Your task to perform on an android device: What's the weather going to be this weekend? Image 0: 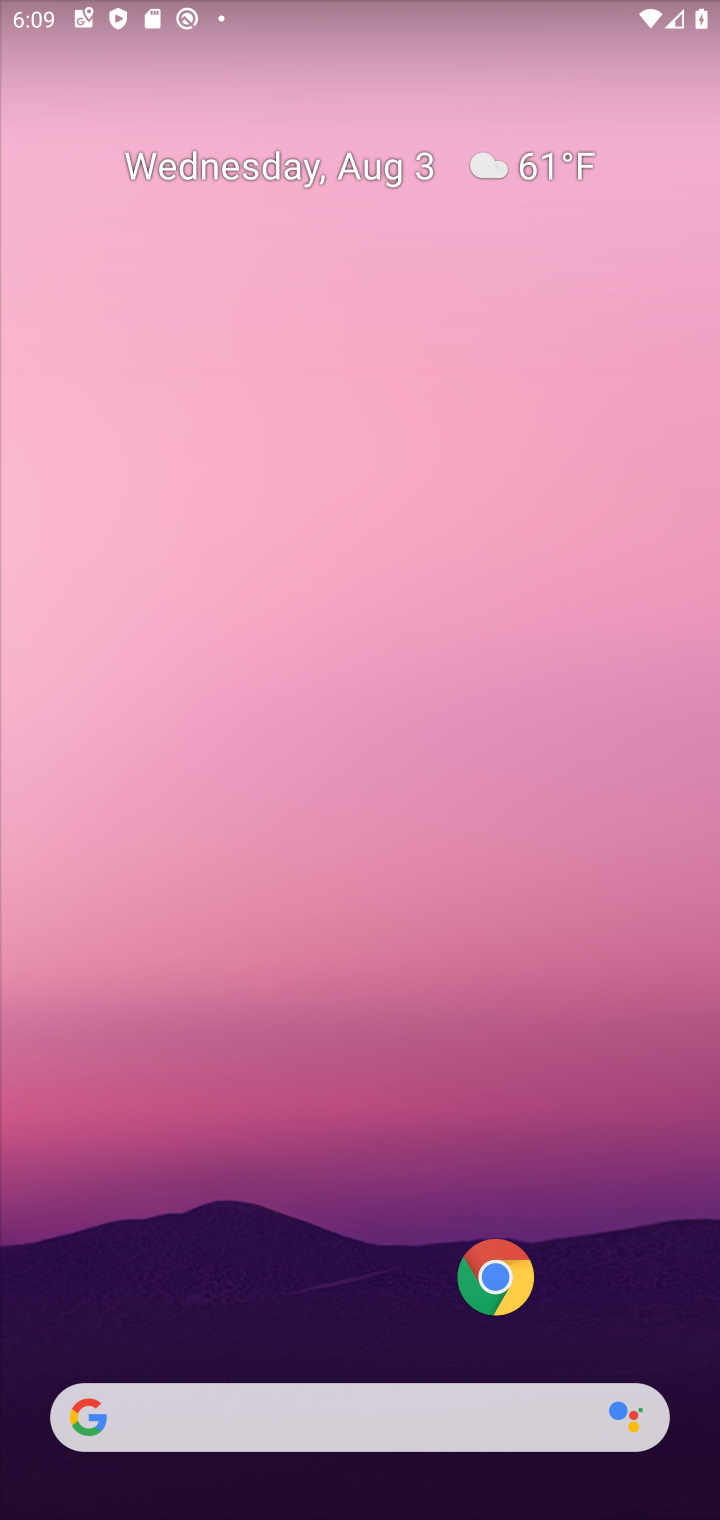
Step 0: drag from (259, 1150) to (453, 33)
Your task to perform on an android device: What's the weather going to be this weekend? Image 1: 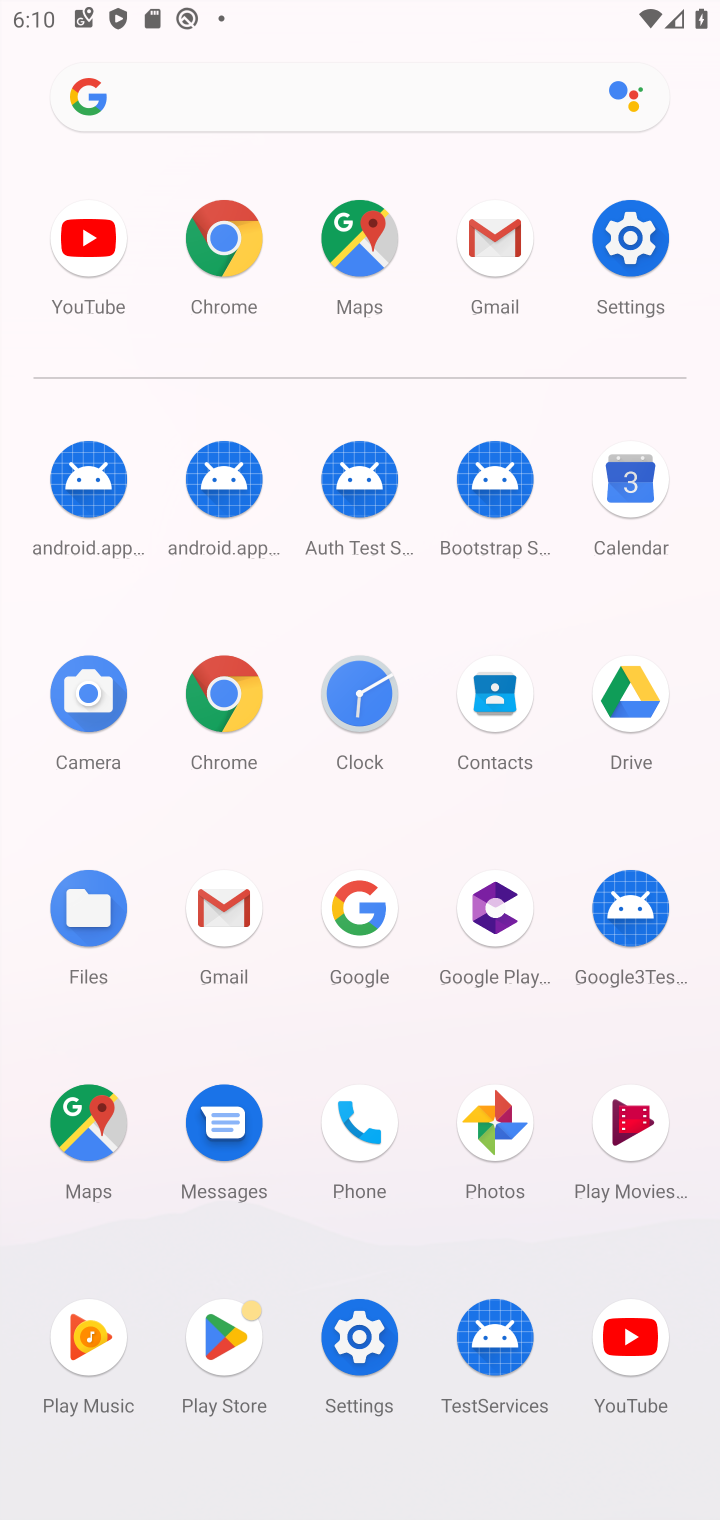
Step 1: click (338, 91)
Your task to perform on an android device: What's the weather going to be this weekend? Image 2: 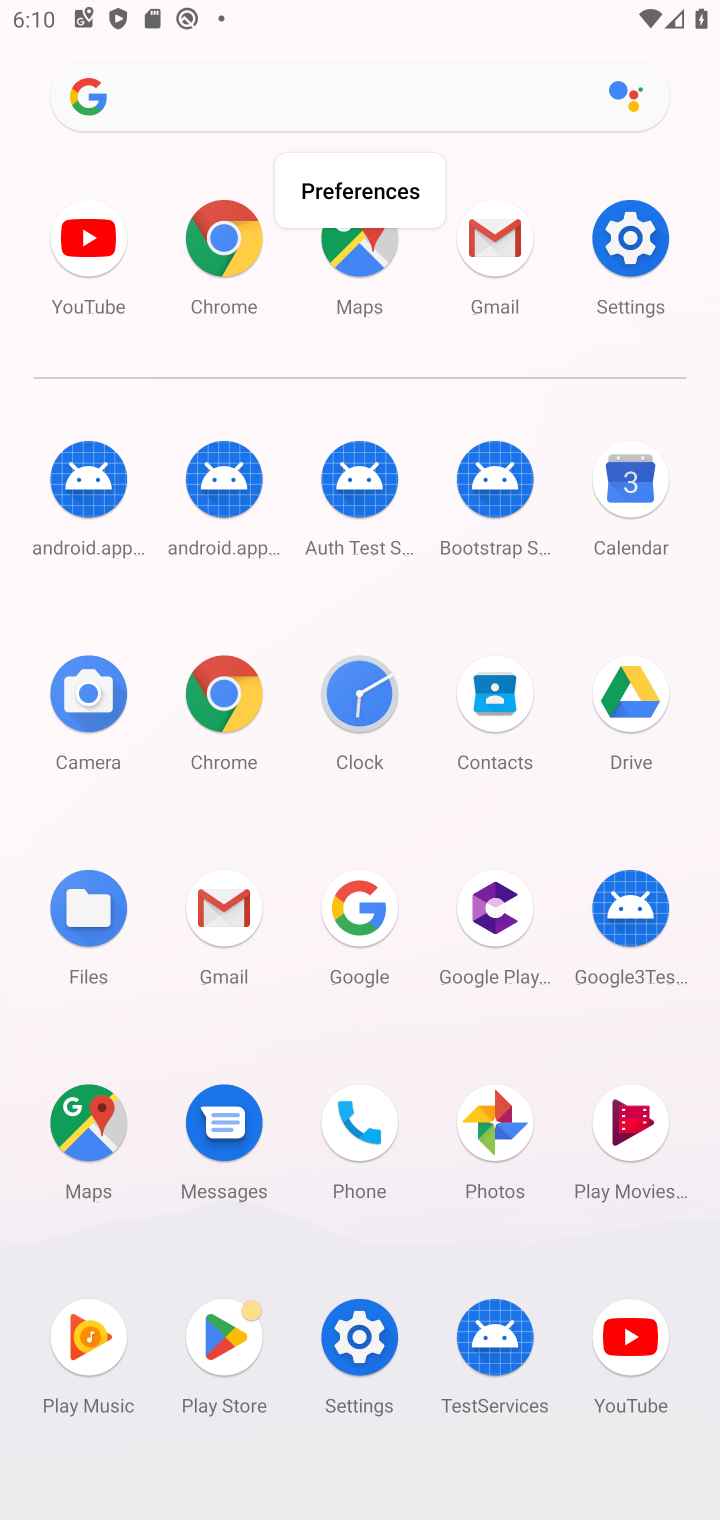
Step 2: click (272, 99)
Your task to perform on an android device: What's the weather going to be this weekend? Image 3: 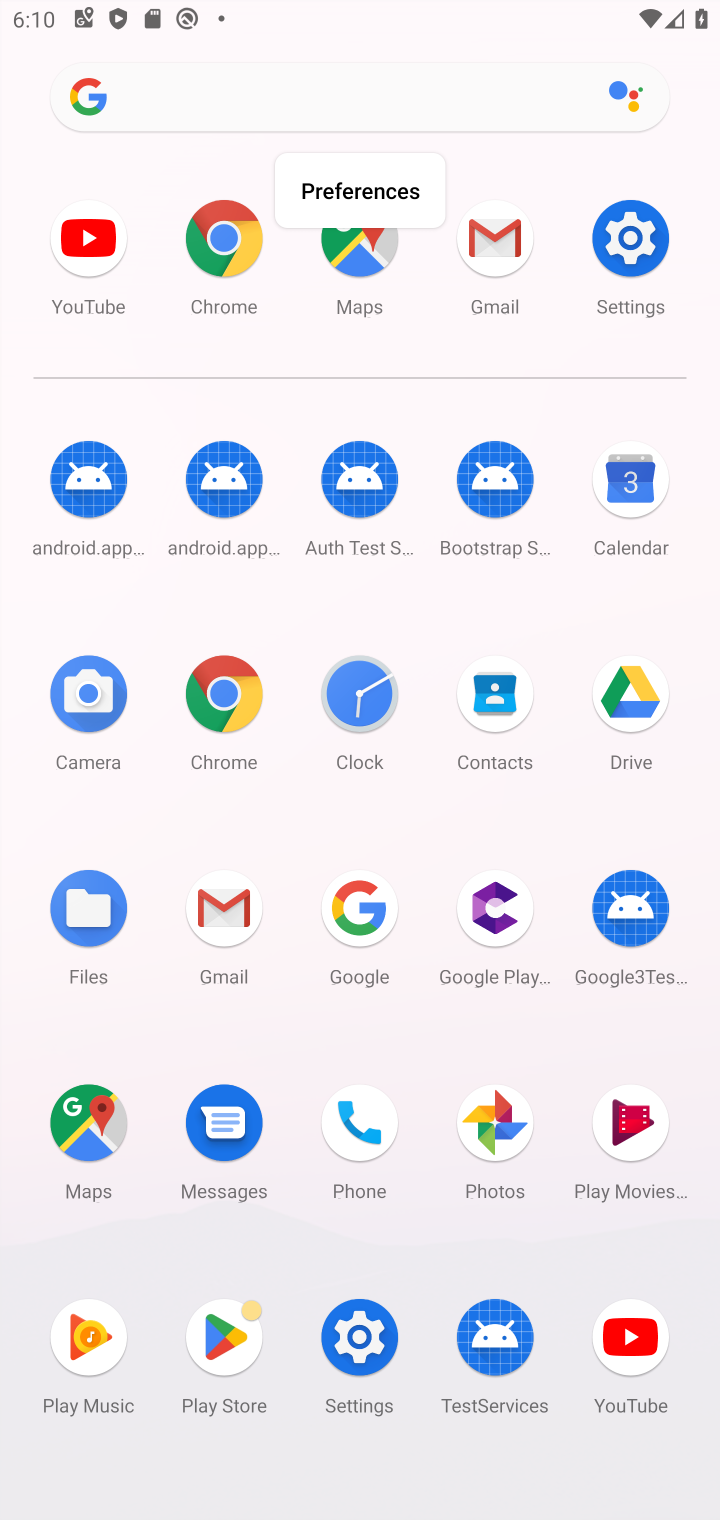
Step 3: click (268, 94)
Your task to perform on an android device: What's the weather going to be this weekend? Image 4: 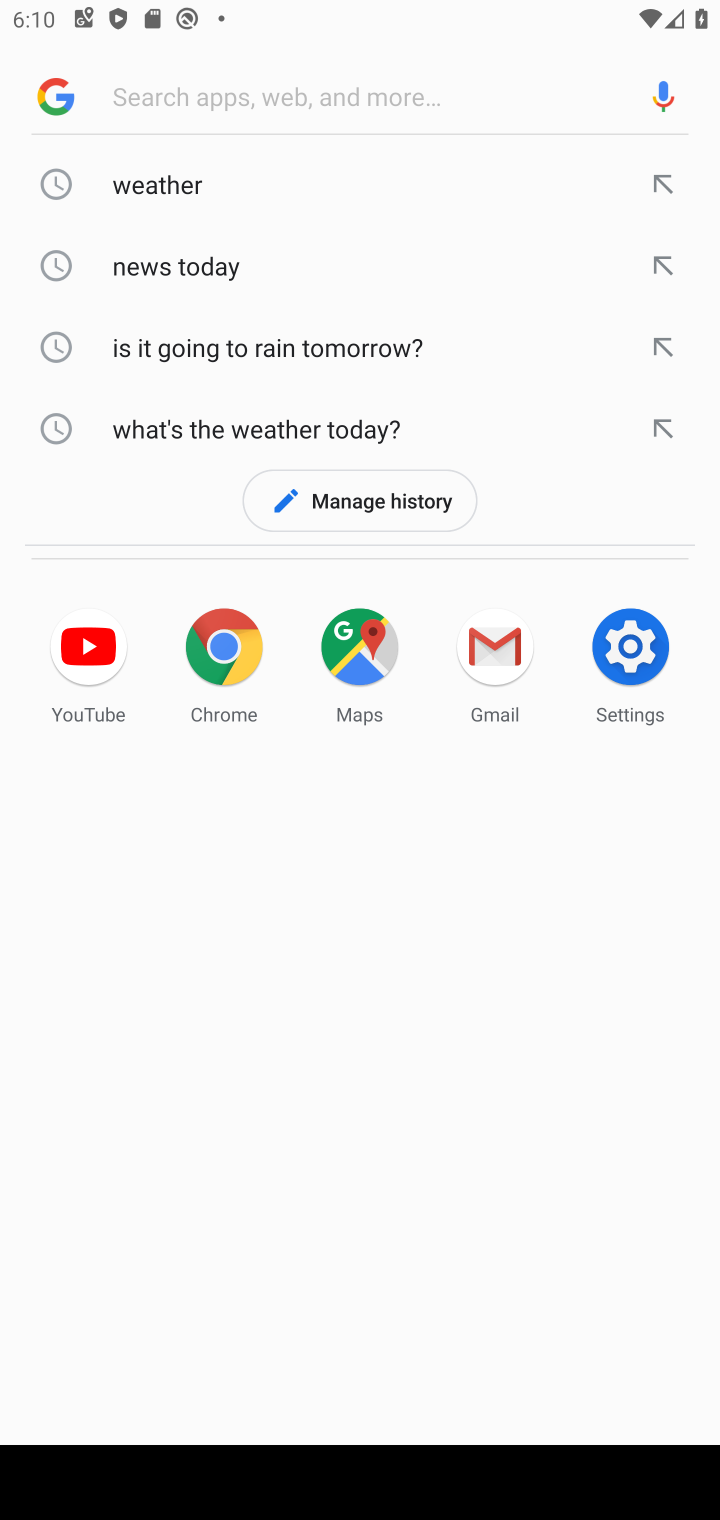
Step 4: click (227, 171)
Your task to perform on an android device: What's the weather going to be this weekend? Image 5: 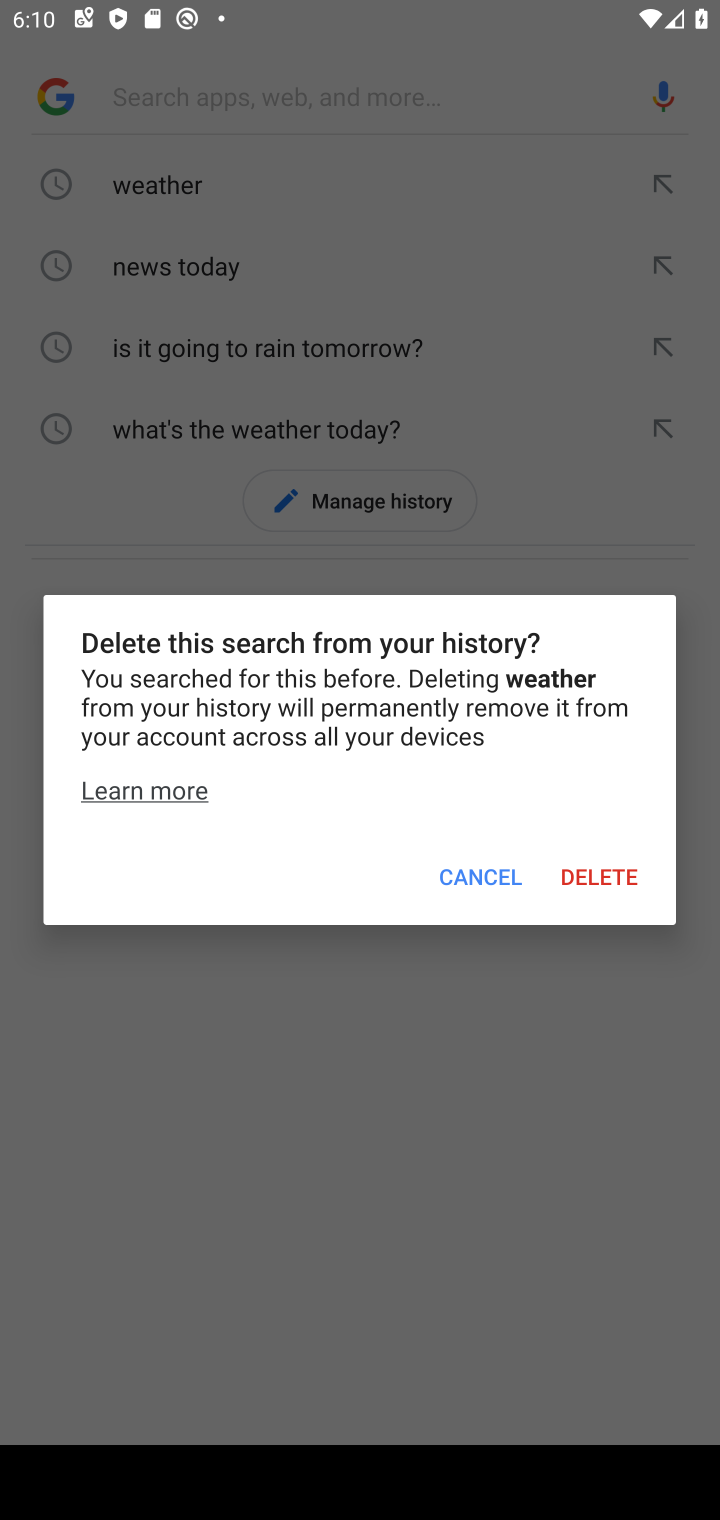
Step 5: click (456, 853)
Your task to perform on an android device: What's the weather going to be this weekend? Image 6: 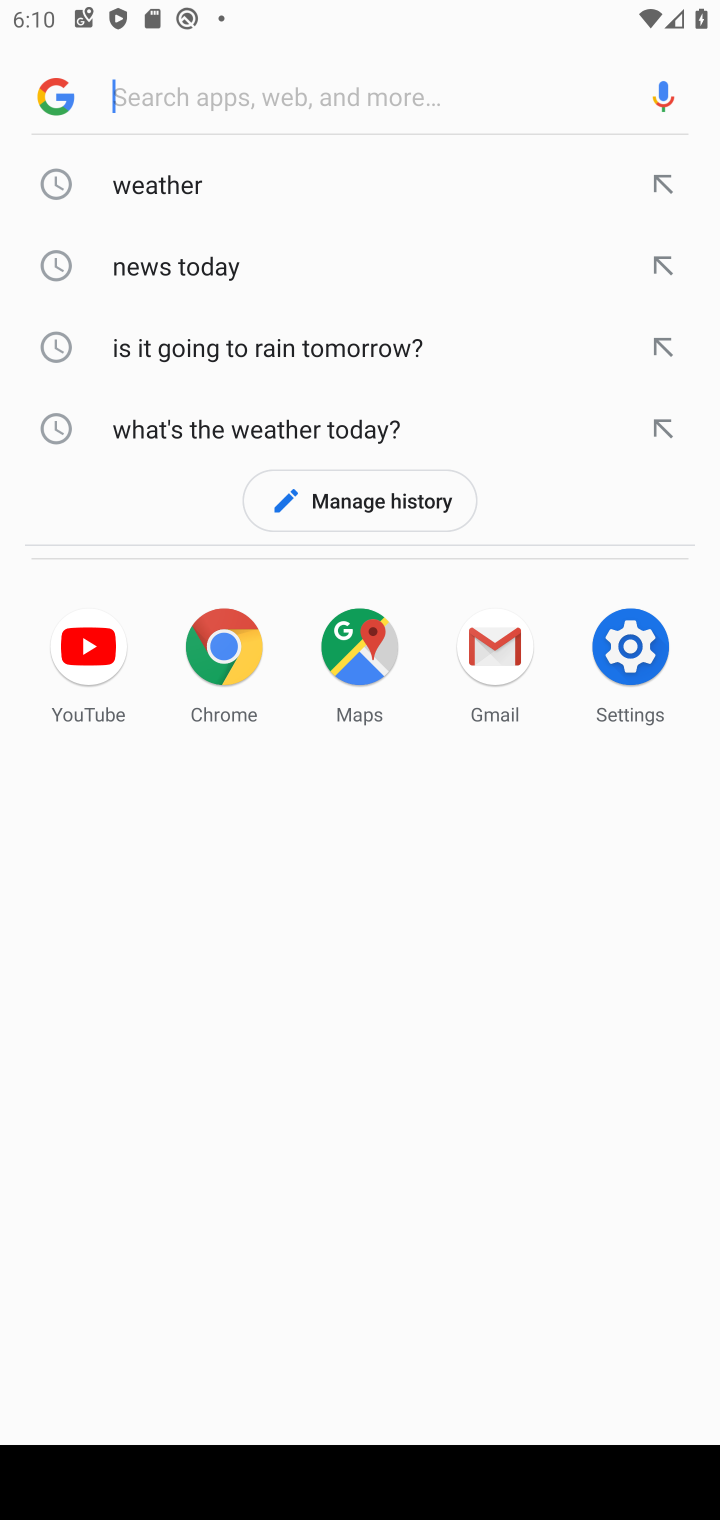
Step 6: click (210, 182)
Your task to perform on an android device: What's the weather going to be this weekend? Image 7: 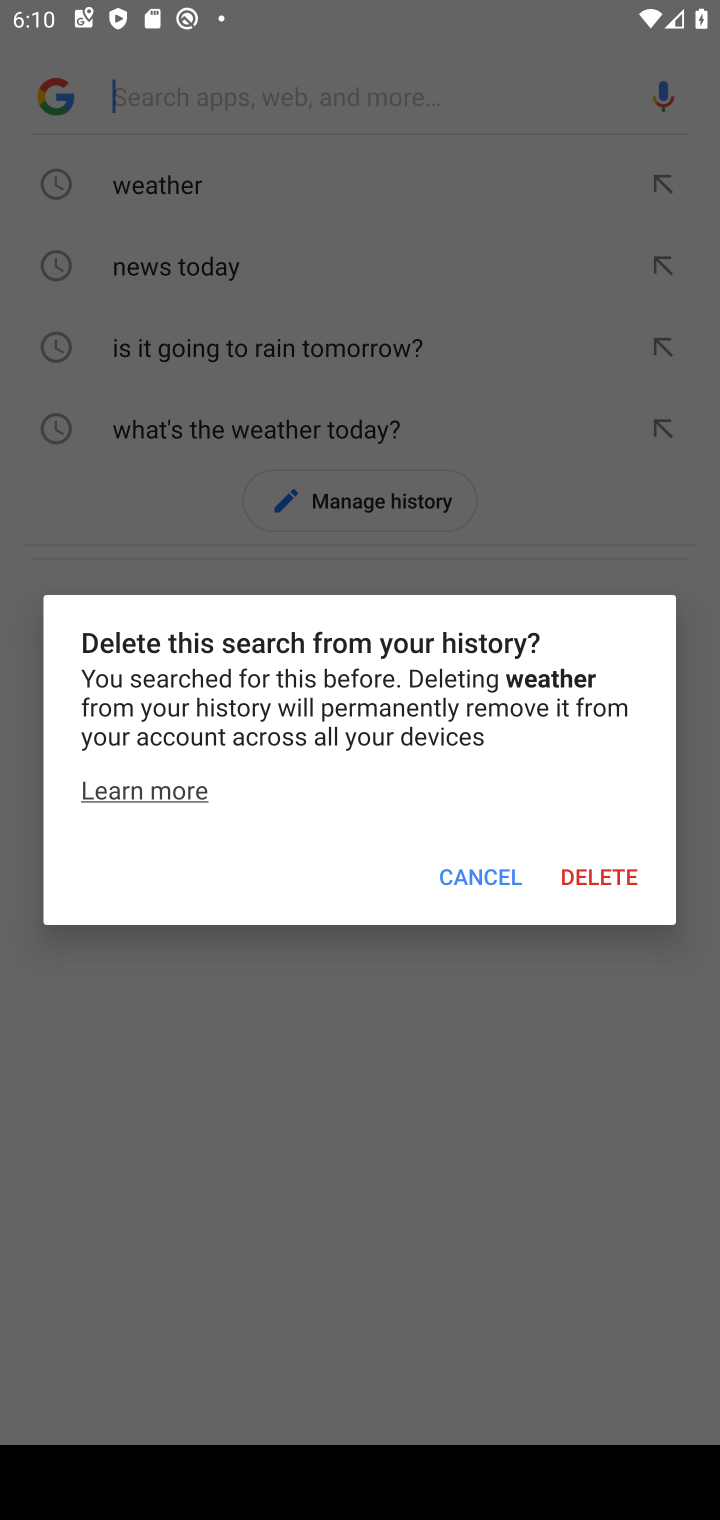
Step 7: click (479, 859)
Your task to perform on an android device: What's the weather going to be this weekend? Image 8: 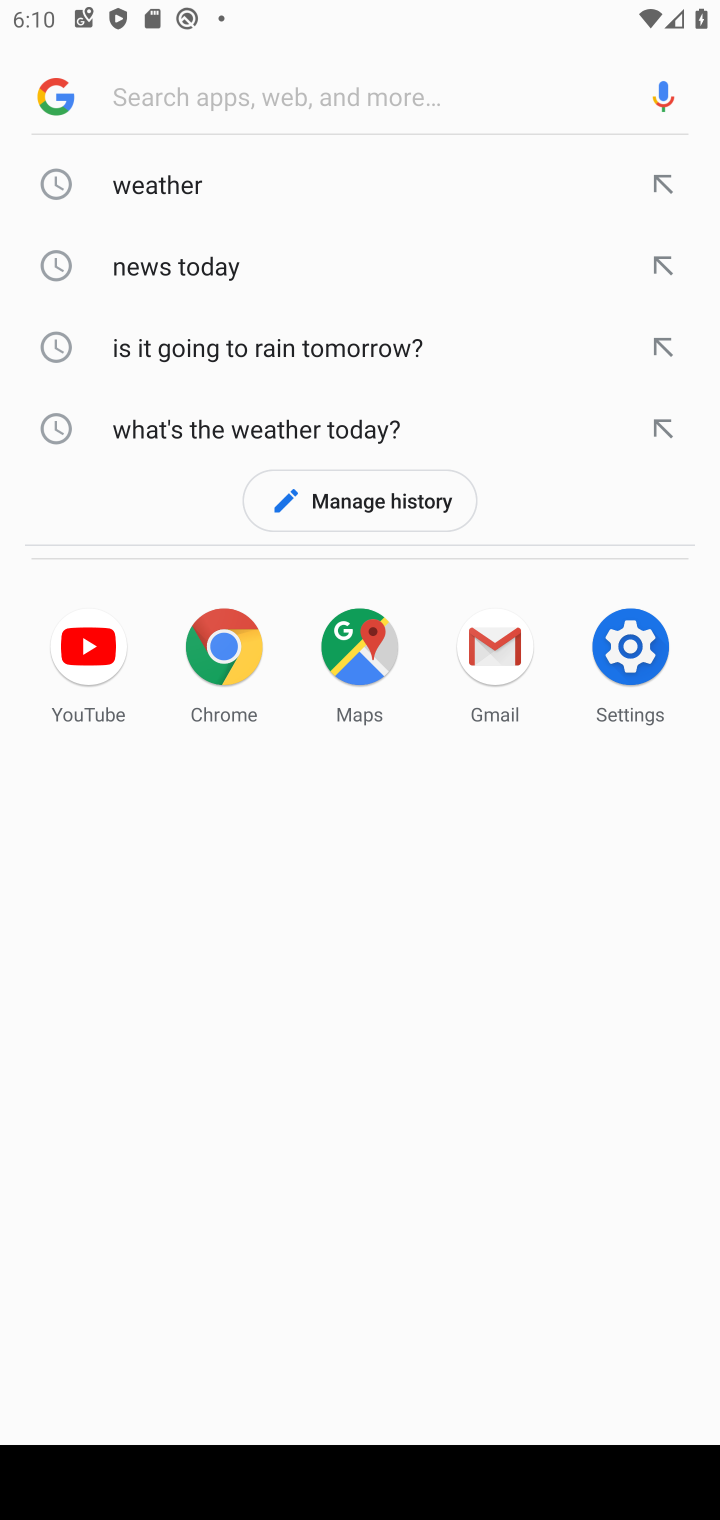
Step 8: click (352, 169)
Your task to perform on an android device: What's the weather going to be this weekend? Image 9: 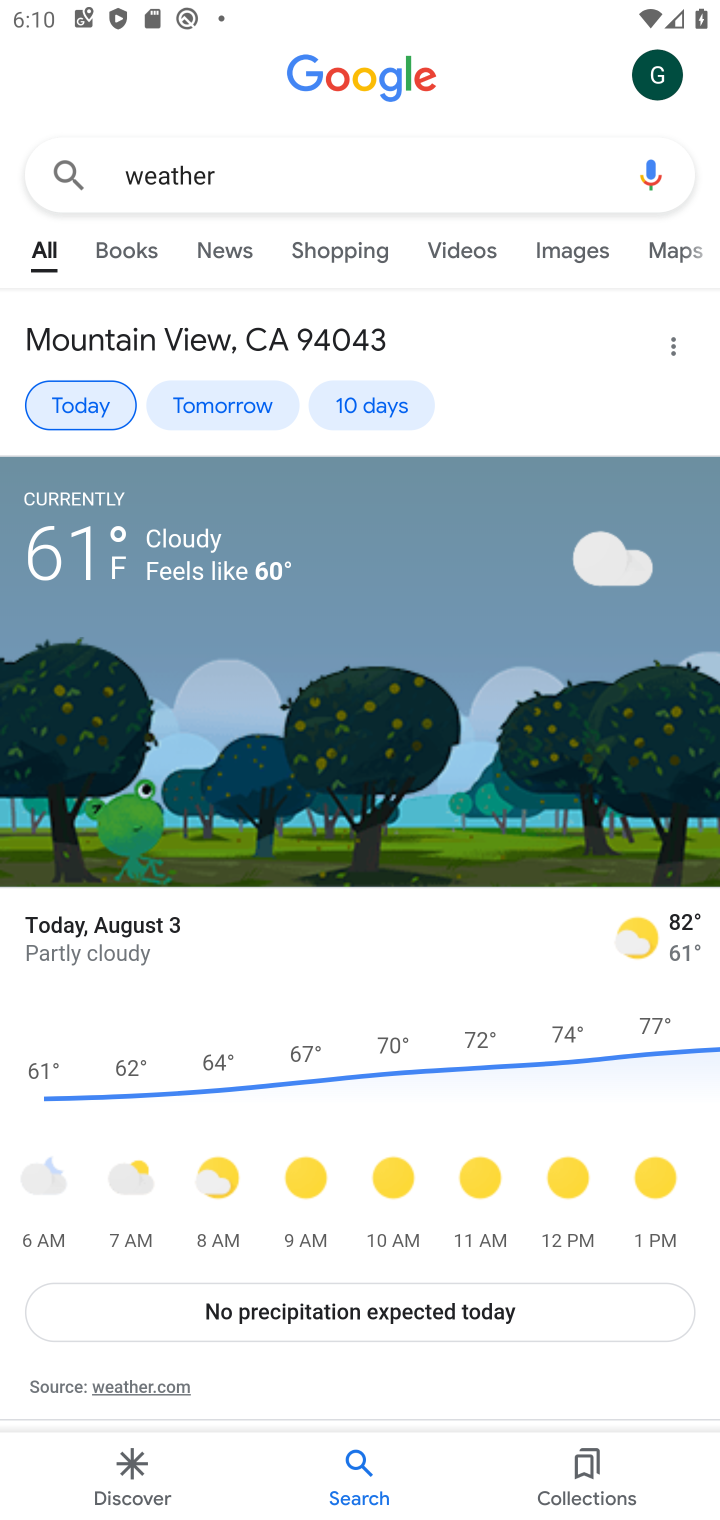
Step 9: click (361, 404)
Your task to perform on an android device: What's the weather going to be this weekend? Image 10: 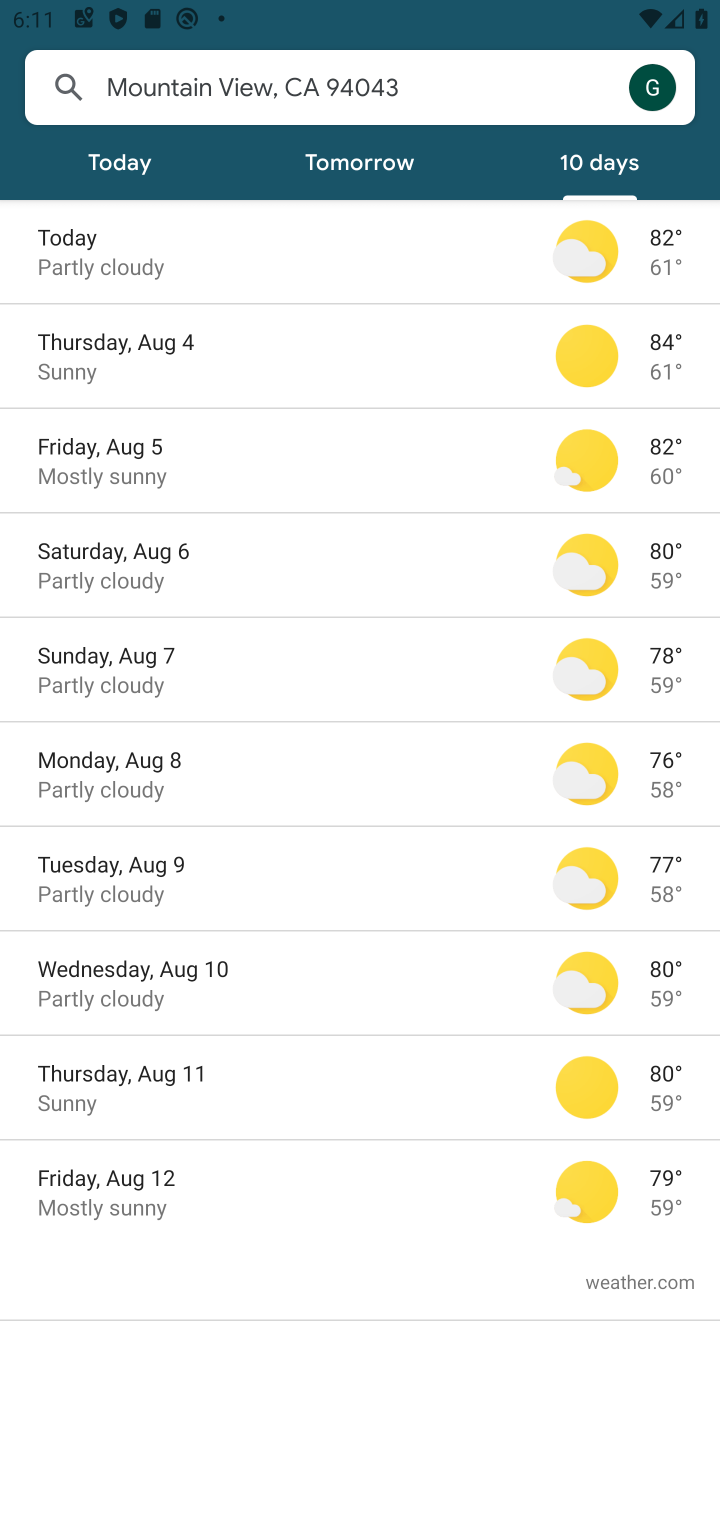
Step 10: task complete